Your task to perform on an android device: Open the Play Movies app and select the watchlist tab. Image 0: 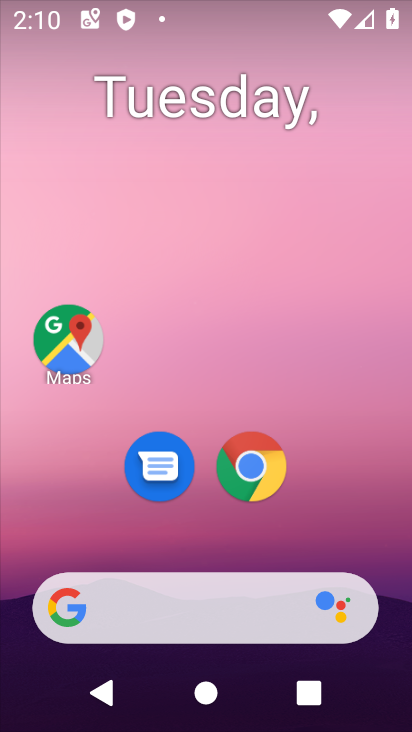
Step 0: drag from (395, 549) to (340, 292)
Your task to perform on an android device: Open the Play Movies app and select the watchlist tab. Image 1: 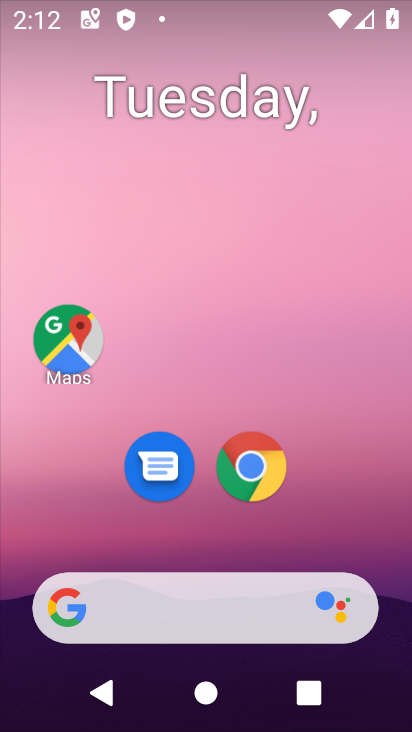
Step 1: drag from (366, 472) to (294, 155)
Your task to perform on an android device: Open the Play Movies app and select the watchlist tab. Image 2: 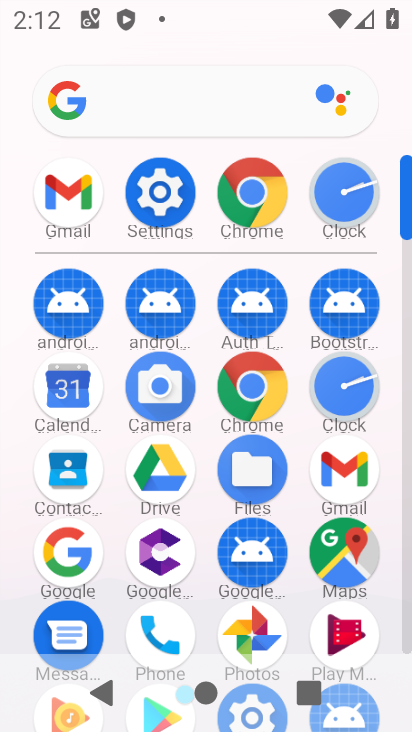
Step 2: click (411, 649)
Your task to perform on an android device: Open the Play Movies app and select the watchlist tab. Image 3: 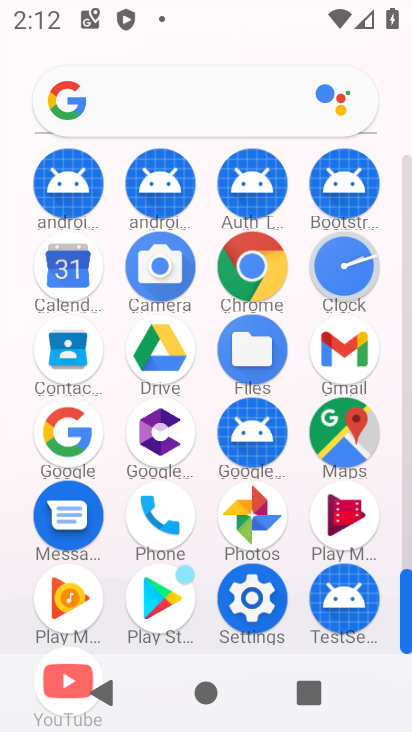
Step 3: drag from (401, 634) to (405, 730)
Your task to perform on an android device: Open the Play Movies app and select the watchlist tab. Image 4: 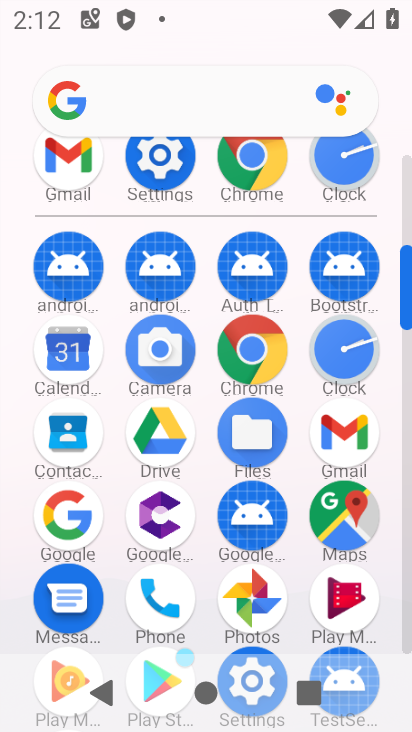
Step 4: click (410, 649)
Your task to perform on an android device: Open the Play Movies app and select the watchlist tab. Image 5: 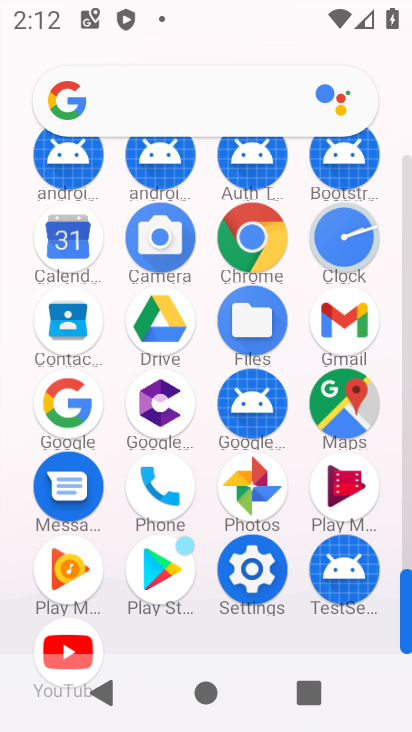
Step 5: click (318, 500)
Your task to perform on an android device: Open the Play Movies app and select the watchlist tab. Image 6: 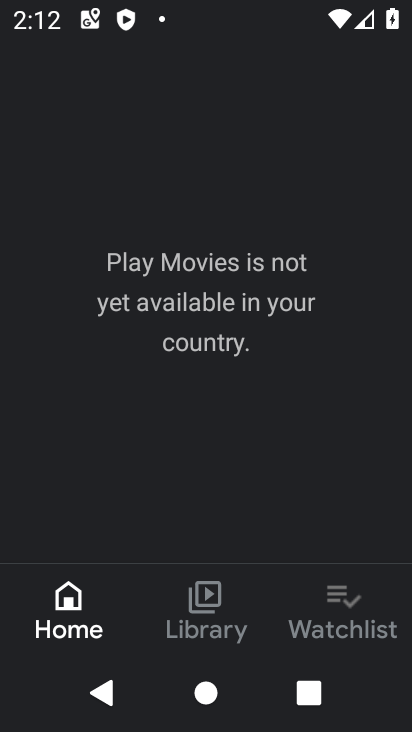
Step 6: click (366, 615)
Your task to perform on an android device: Open the Play Movies app and select the watchlist tab. Image 7: 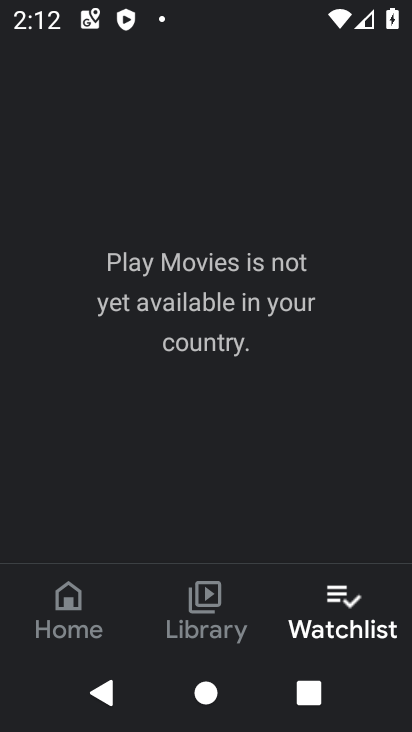
Step 7: task complete